Your task to perform on an android device: What's the weather going to be this weekend? Image 0: 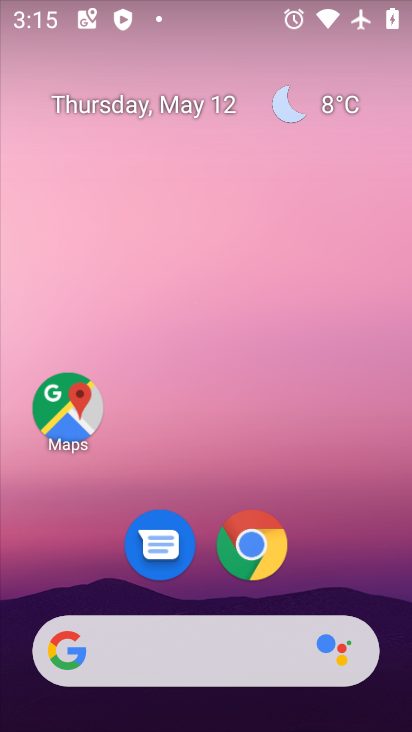
Step 0: click (300, 103)
Your task to perform on an android device: What's the weather going to be this weekend? Image 1: 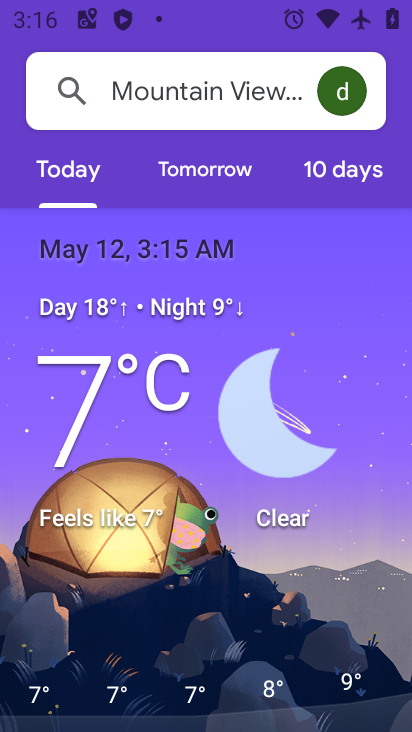
Step 1: click (354, 164)
Your task to perform on an android device: What's the weather going to be this weekend? Image 2: 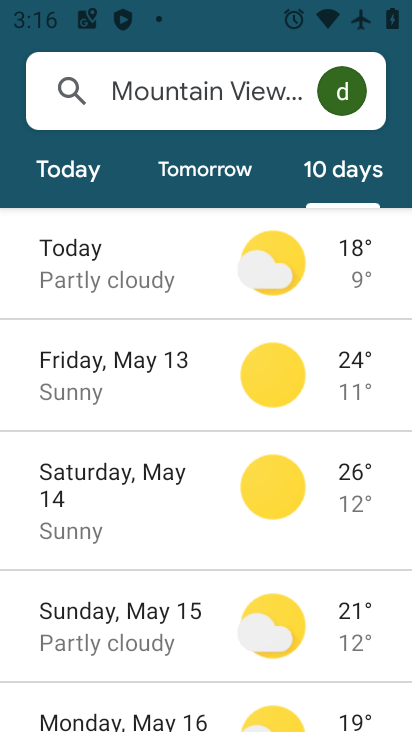
Step 2: task complete